Your task to perform on an android device: open sync settings in chrome Image 0: 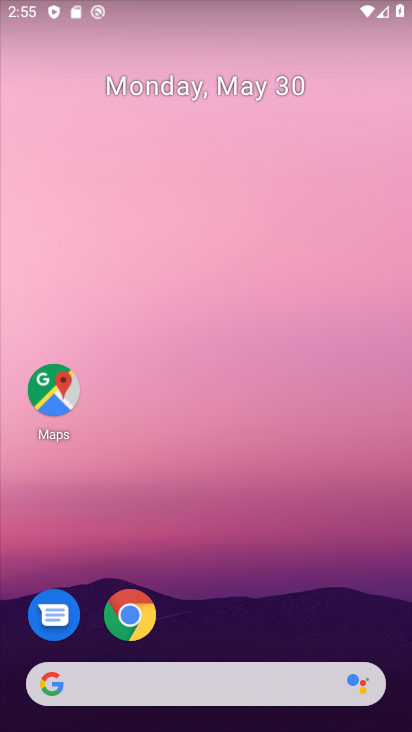
Step 0: click (125, 613)
Your task to perform on an android device: open sync settings in chrome Image 1: 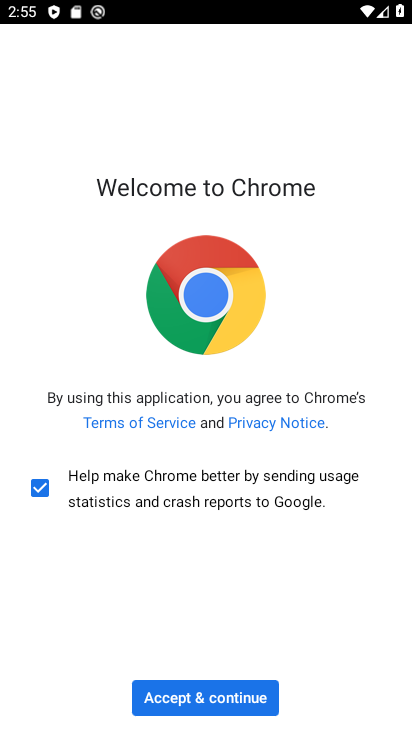
Step 1: click (217, 710)
Your task to perform on an android device: open sync settings in chrome Image 2: 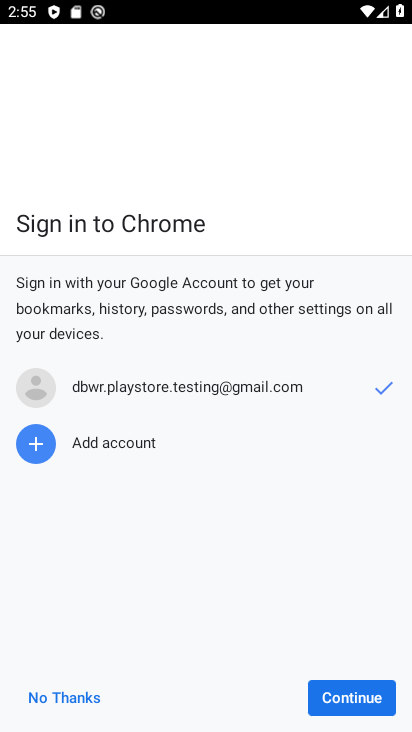
Step 2: click (360, 696)
Your task to perform on an android device: open sync settings in chrome Image 3: 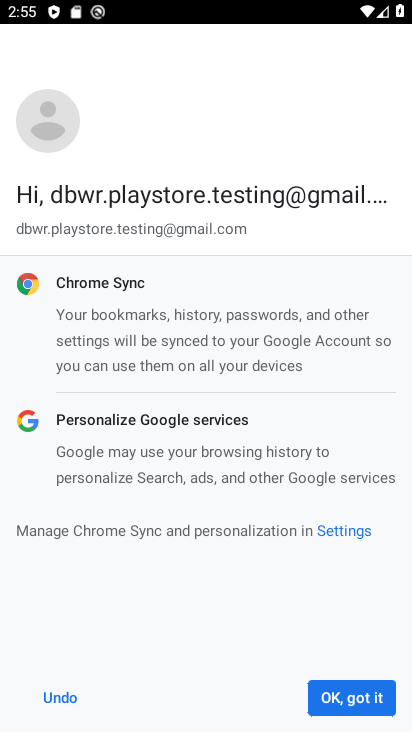
Step 3: click (360, 696)
Your task to perform on an android device: open sync settings in chrome Image 4: 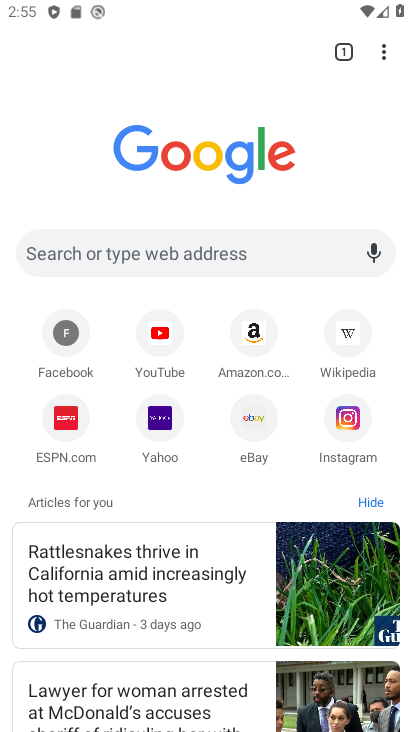
Step 4: click (390, 45)
Your task to perform on an android device: open sync settings in chrome Image 5: 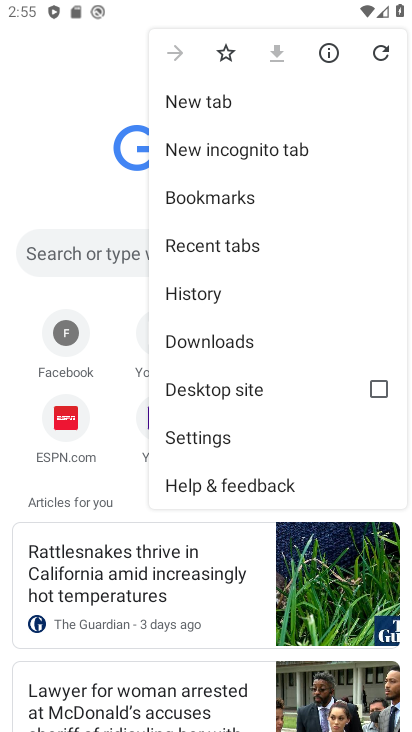
Step 5: click (197, 432)
Your task to perform on an android device: open sync settings in chrome Image 6: 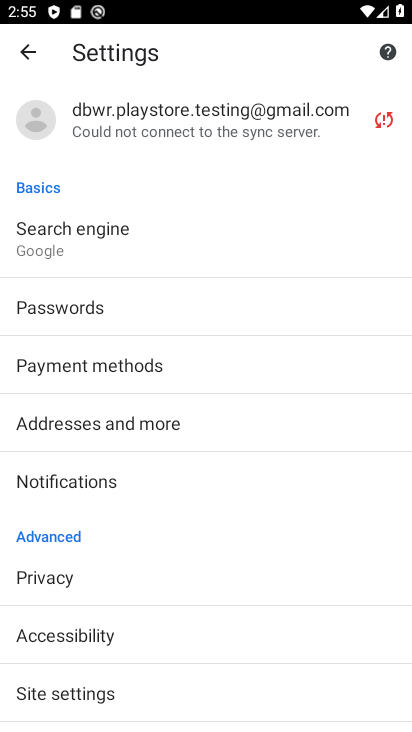
Step 6: click (103, 133)
Your task to perform on an android device: open sync settings in chrome Image 7: 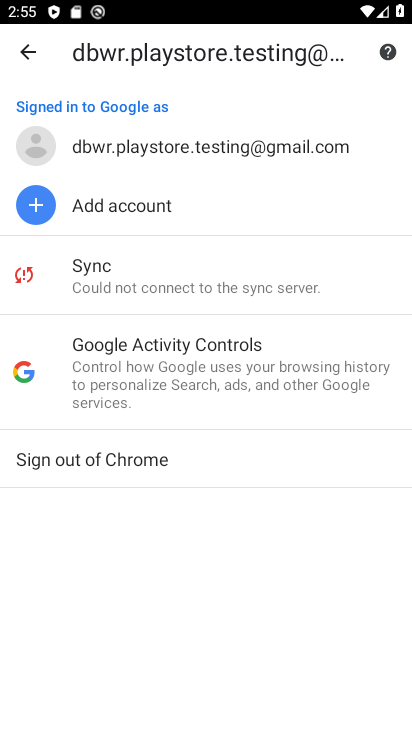
Step 7: click (133, 283)
Your task to perform on an android device: open sync settings in chrome Image 8: 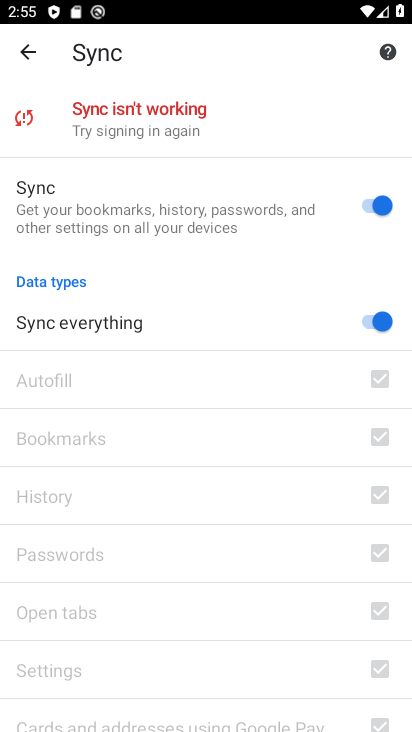
Step 8: task complete